Your task to perform on an android device: Go to location settings Image 0: 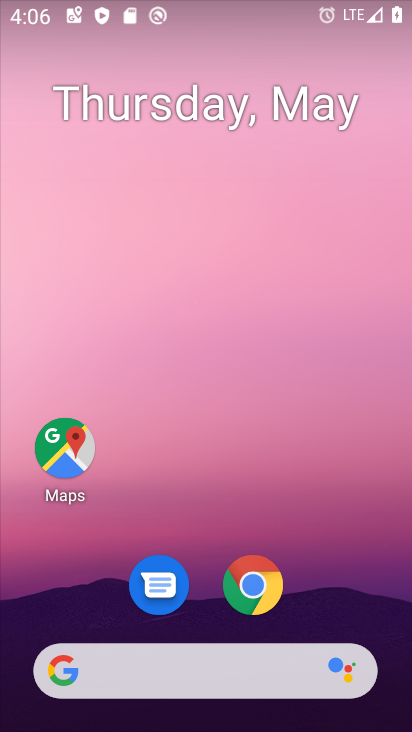
Step 0: drag from (234, 501) to (242, 0)
Your task to perform on an android device: Go to location settings Image 1: 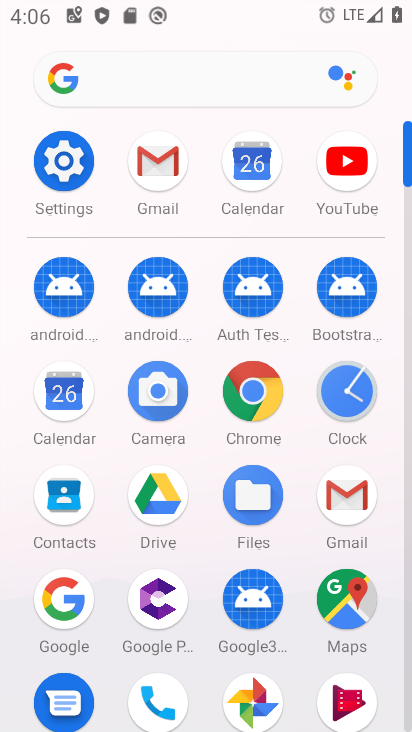
Step 1: click (66, 156)
Your task to perform on an android device: Go to location settings Image 2: 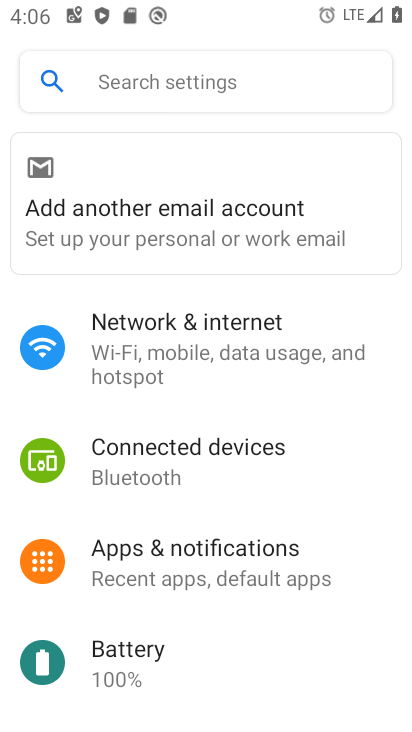
Step 2: drag from (250, 625) to (267, 58)
Your task to perform on an android device: Go to location settings Image 3: 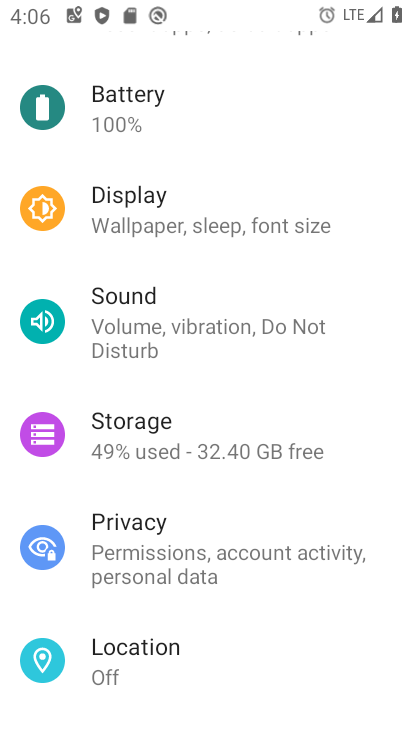
Step 3: click (207, 663)
Your task to perform on an android device: Go to location settings Image 4: 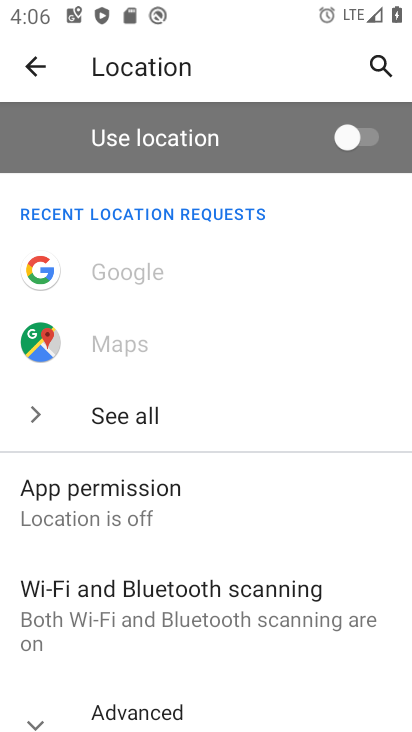
Step 4: task complete